Your task to perform on an android device: find photos in the google photos app Image 0: 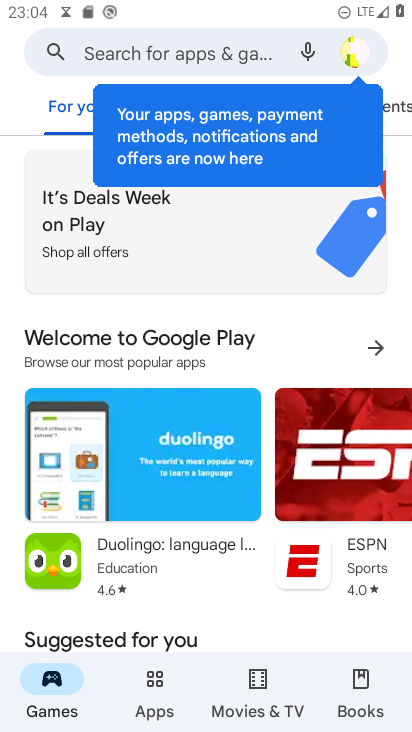
Step 0: press home button
Your task to perform on an android device: find photos in the google photos app Image 1: 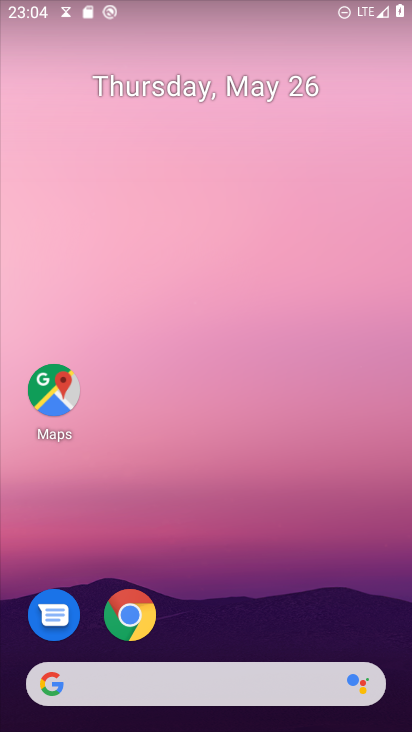
Step 1: drag from (217, 509) to (219, 257)
Your task to perform on an android device: find photos in the google photos app Image 2: 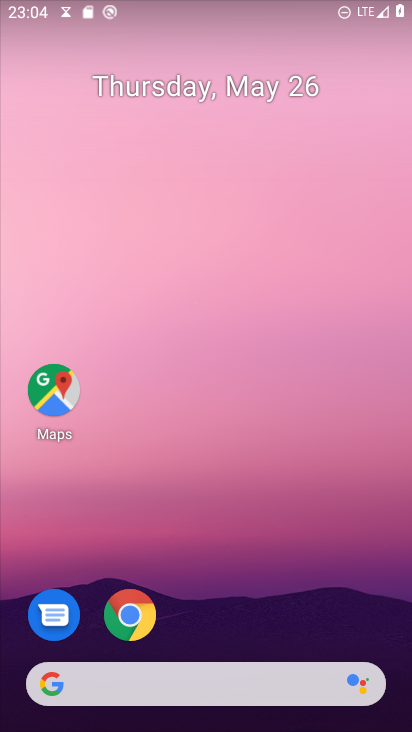
Step 2: drag from (216, 608) to (236, 239)
Your task to perform on an android device: find photos in the google photos app Image 3: 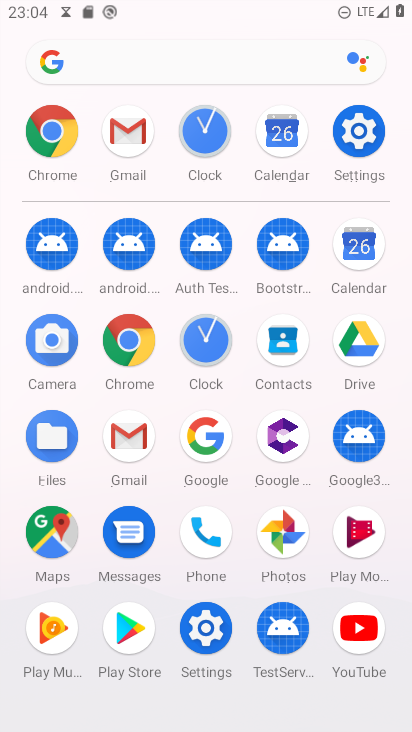
Step 3: click (282, 527)
Your task to perform on an android device: find photos in the google photos app Image 4: 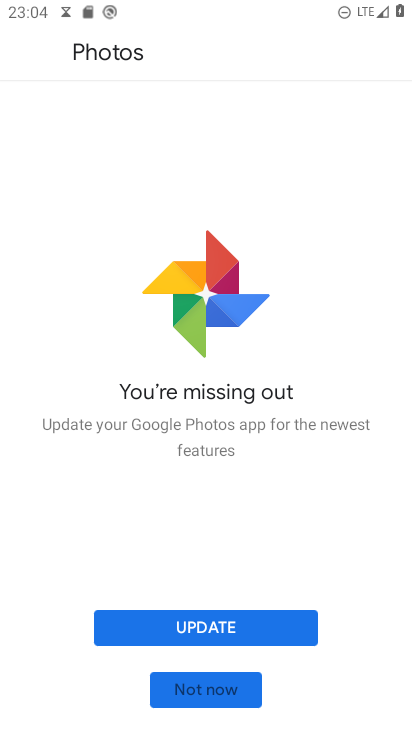
Step 4: click (204, 683)
Your task to perform on an android device: find photos in the google photos app Image 5: 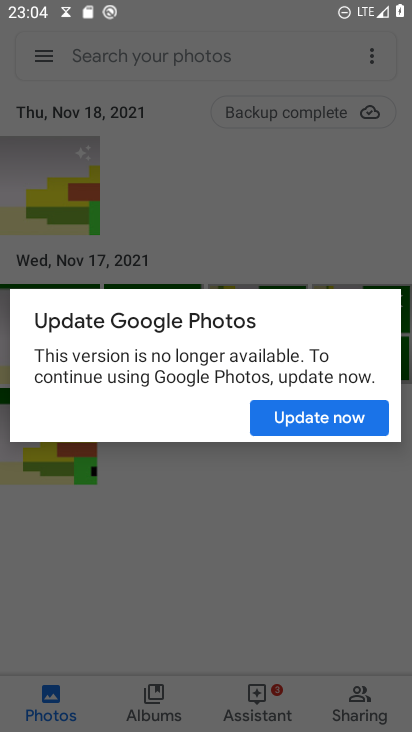
Step 5: press back button
Your task to perform on an android device: find photos in the google photos app Image 6: 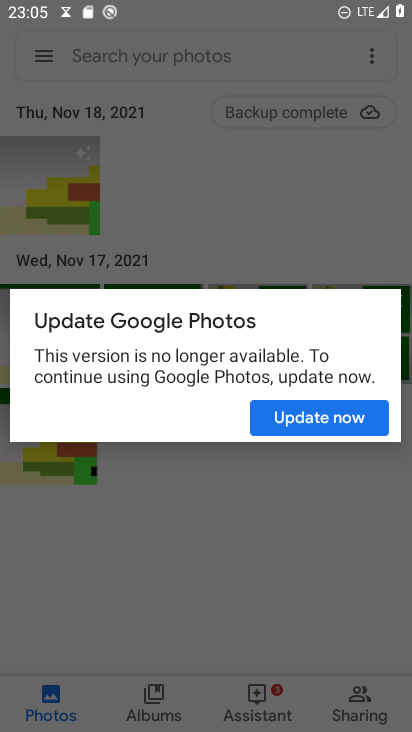
Step 6: click (315, 408)
Your task to perform on an android device: find photos in the google photos app Image 7: 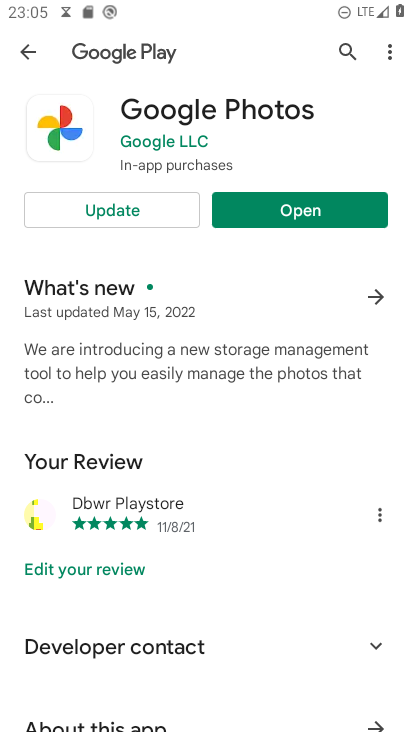
Step 7: press back button
Your task to perform on an android device: find photos in the google photos app Image 8: 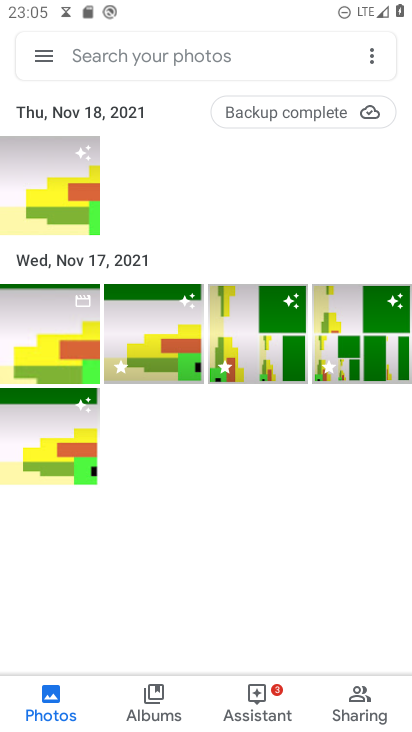
Step 8: click (43, 333)
Your task to perform on an android device: find photos in the google photos app Image 9: 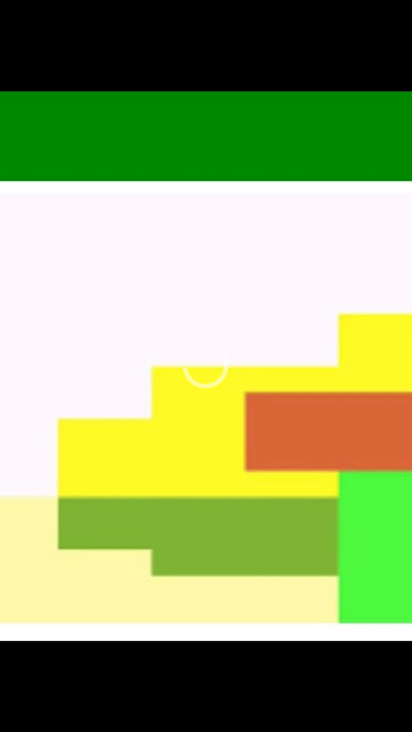
Step 9: task complete